Your task to perform on an android device: turn off priority inbox in the gmail app Image 0: 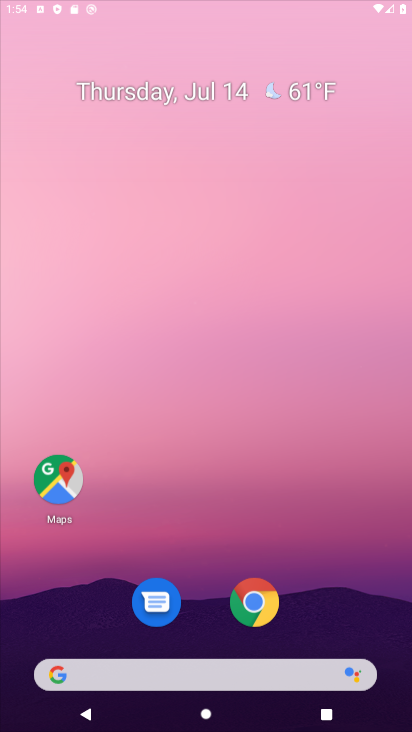
Step 0: press home button
Your task to perform on an android device: turn off priority inbox in the gmail app Image 1: 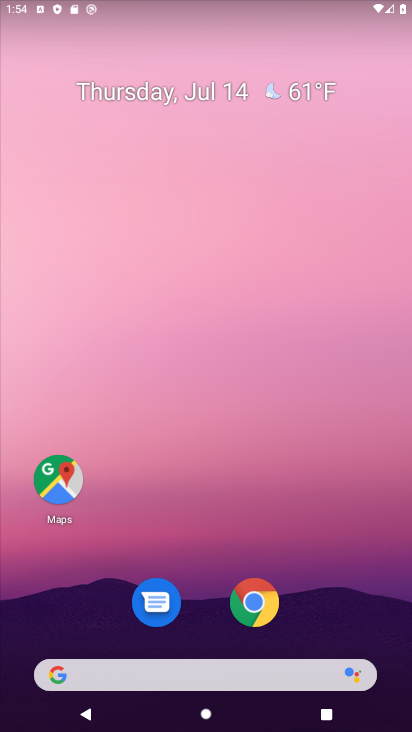
Step 1: drag from (185, 657) to (210, 384)
Your task to perform on an android device: turn off priority inbox in the gmail app Image 2: 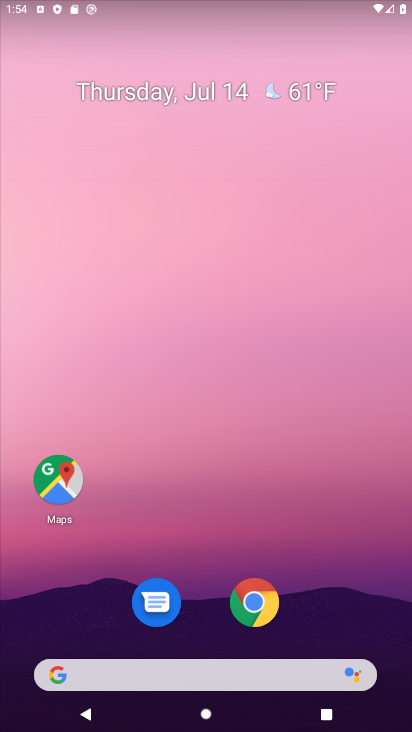
Step 2: drag from (206, 625) to (254, 394)
Your task to perform on an android device: turn off priority inbox in the gmail app Image 3: 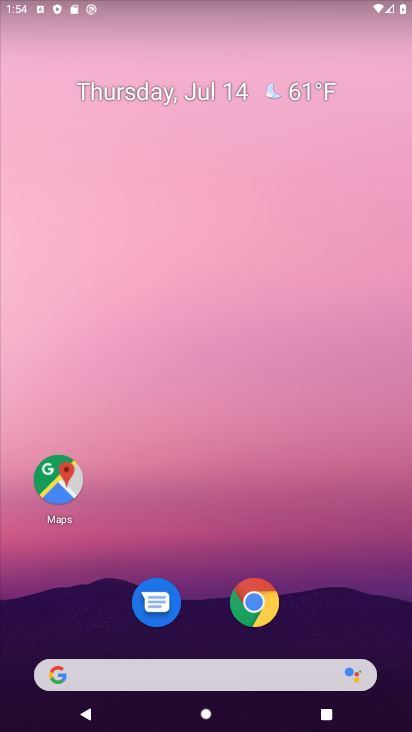
Step 3: click (251, 594)
Your task to perform on an android device: turn off priority inbox in the gmail app Image 4: 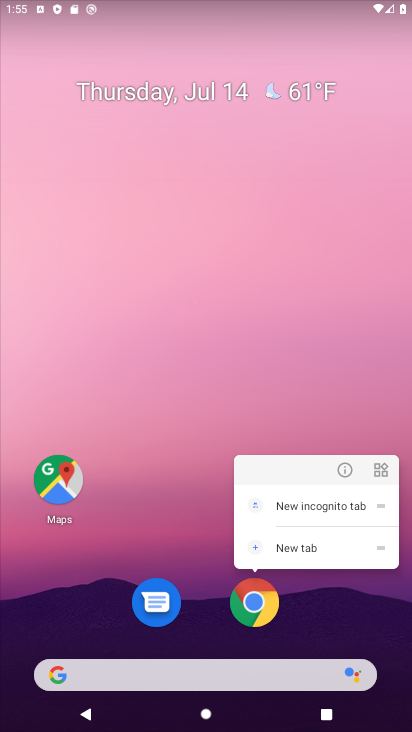
Step 4: press home button
Your task to perform on an android device: turn off priority inbox in the gmail app Image 5: 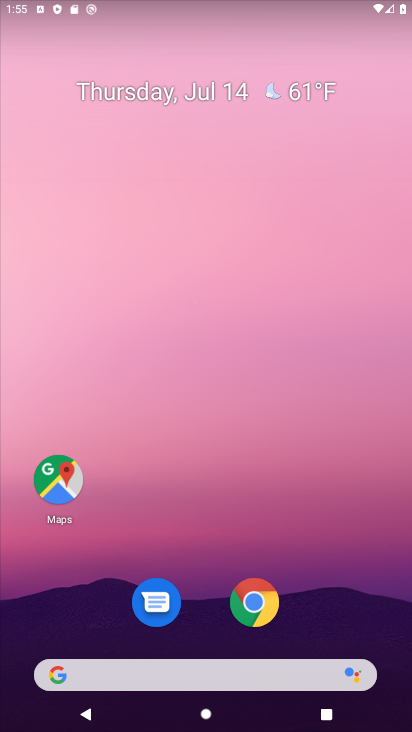
Step 5: drag from (158, 649) to (195, 253)
Your task to perform on an android device: turn off priority inbox in the gmail app Image 6: 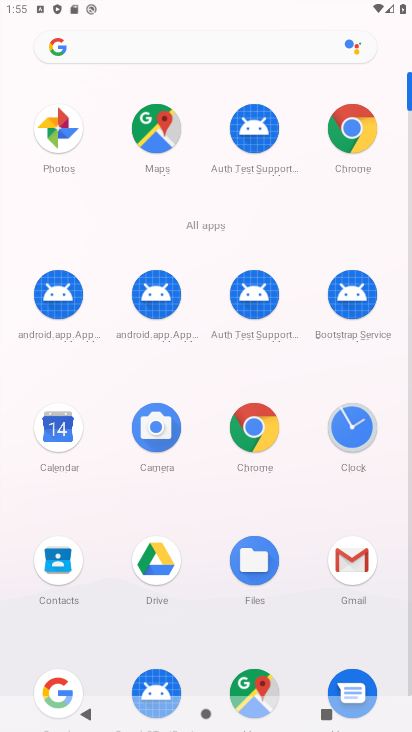
Step 6: click (325, 573)
Your task to perform on an android device: turn off priority inbox in the gmail app Image 7: 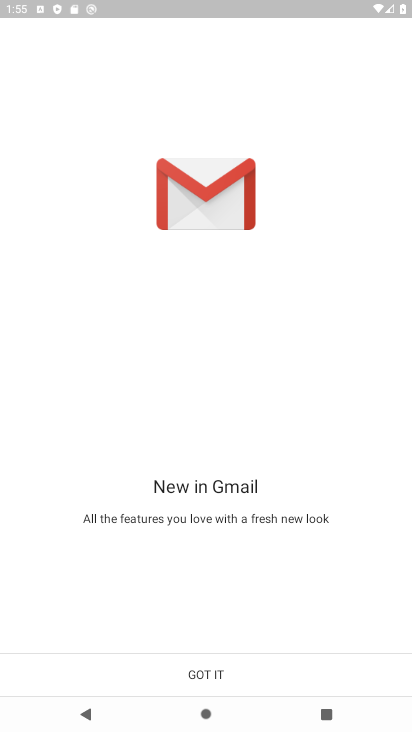
Step 7: click (199, 653)
Your task to perform on an android device: turn off priority inbox in the gmail app Image 8: 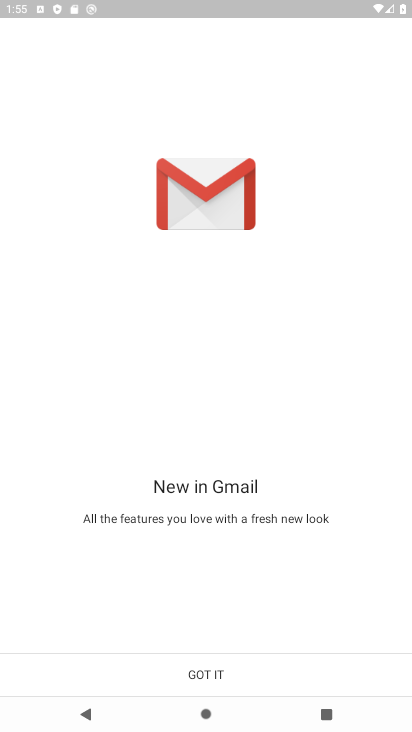
Step 8: click (199, 676)
Your task to perform on an android device: turn off priority inbox in the gmail app Image 9: 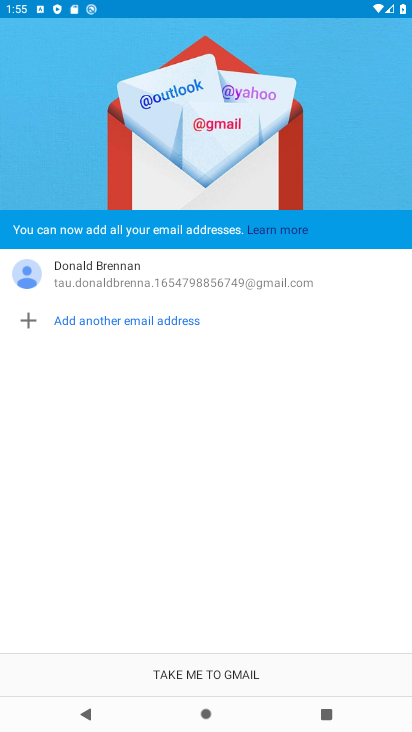
Step 9: click (202, 670)
Your task to perform on an android device: turn off priority inbox in the gmail app Image 10: 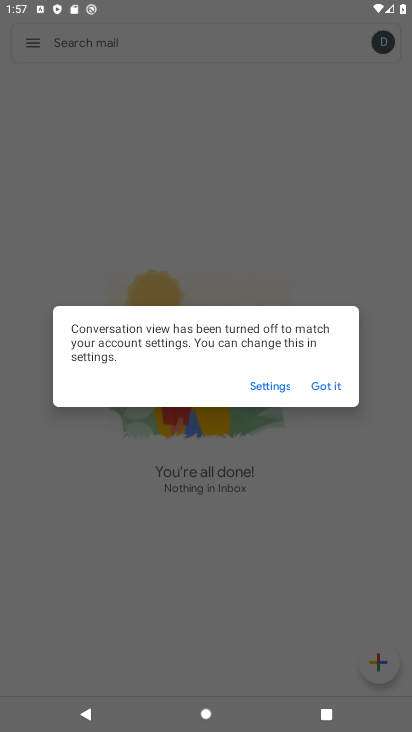
Step 10: click (332, 388)
Your task to perform on an android device: turn off priority inbox in the gmail app Image 11: 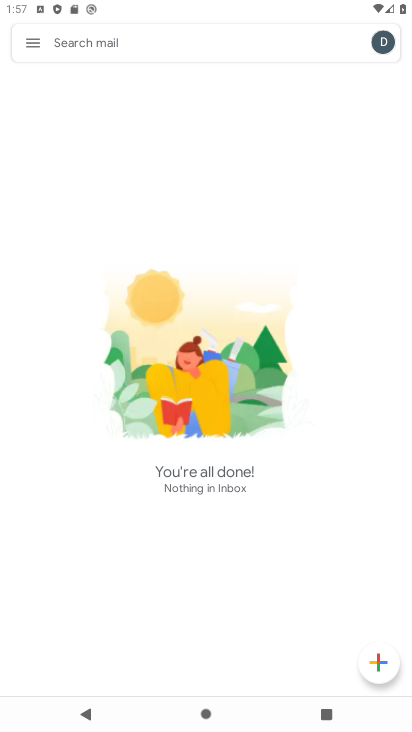
Step 11: click (36, 43)
Your task to perform on an android device: turn off priority inbox in the gmail app Image 12: 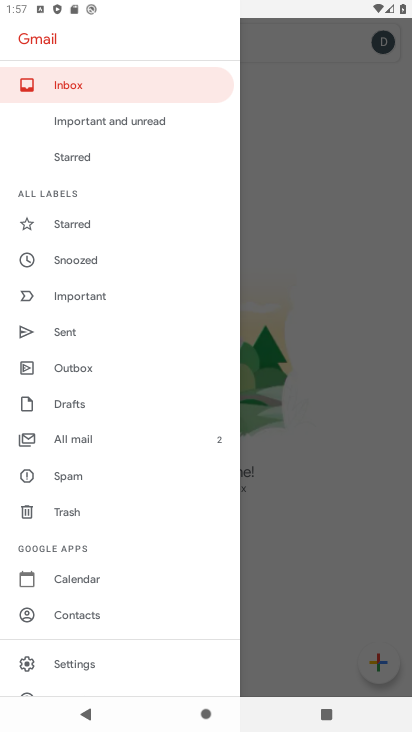
Step 12: click (75, 662)
Your task to perform on an android device: turn off priority inbox in the gmail app Image 13: 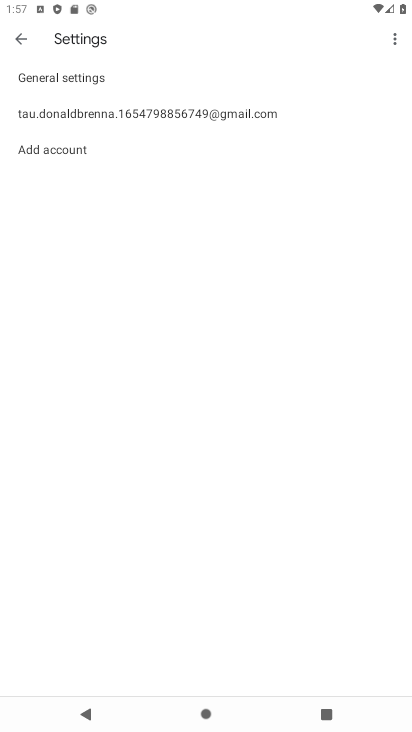
Step 13: click (86, 112)
Your task to perform on an android device: turn off priority inbox in the gmail app Image 14: 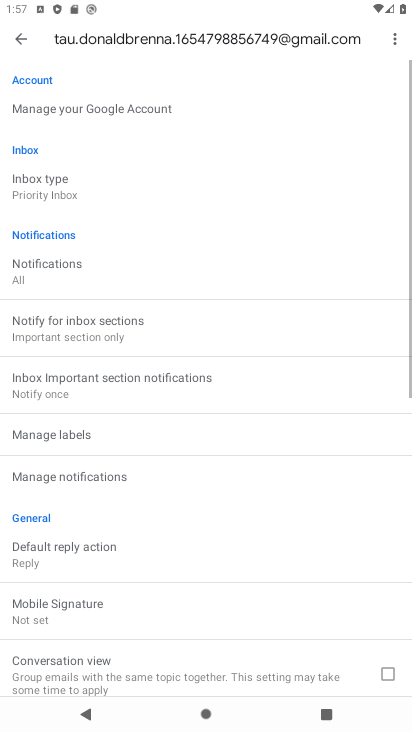
Step 14: click (62, 182)
Your task to perform on an android device: turn off priority inbox in the gmail app Image 15: 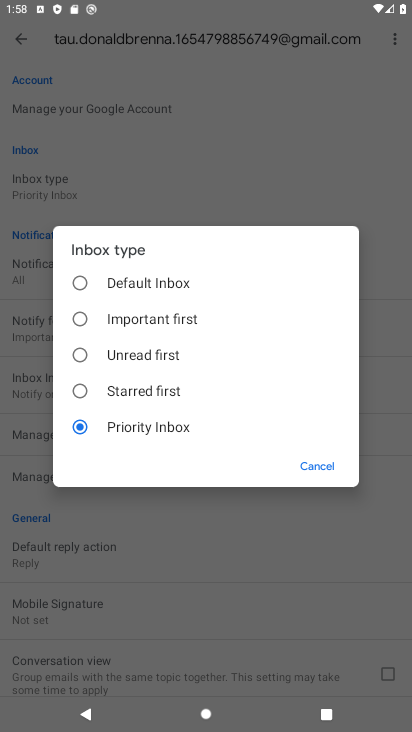
Step 15: click (315, 451)
Your task to perform on an android device: turn off priority inbox in the gmail app Image 16: 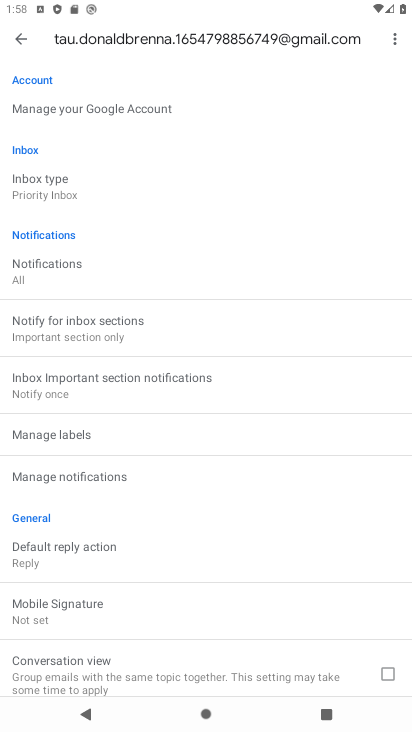
Step 16: click (58, 185)
Your task to perform on an android device: turn off priority inbox in the gmail app Image 17: 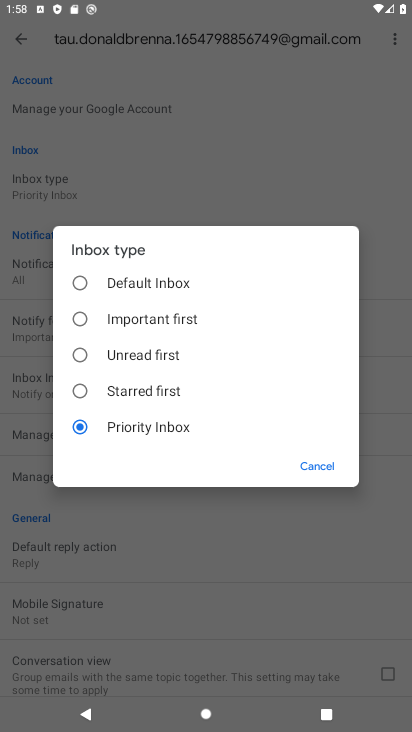
Step 17: click (124, 324)
Your task to perform on an android device: turn off priority inbox in the gmail app Image 18: 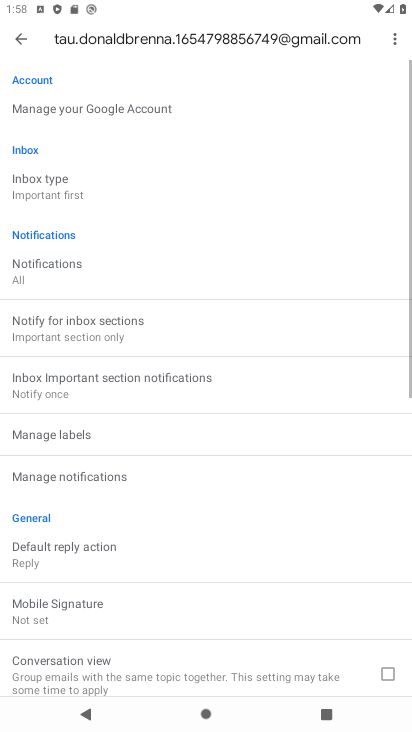
Step 18: task complete